Your task to perform on an android device: Open Youtube and go to the subscriptions tab Image 0: 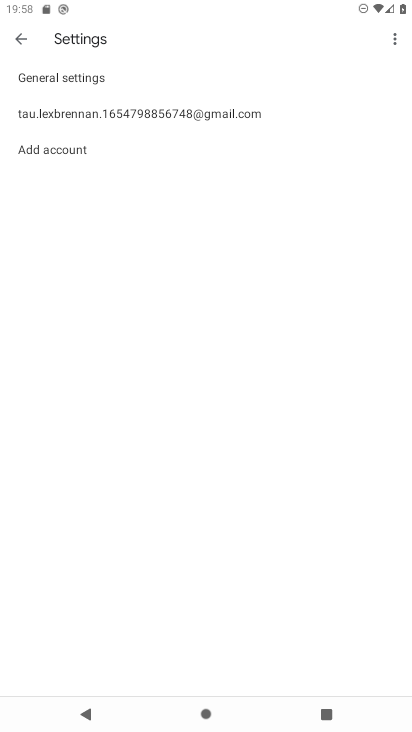
Step 0: press home button
Your task to perform on an android device: Open Youtube and go to the subscriptions tab Image 1: 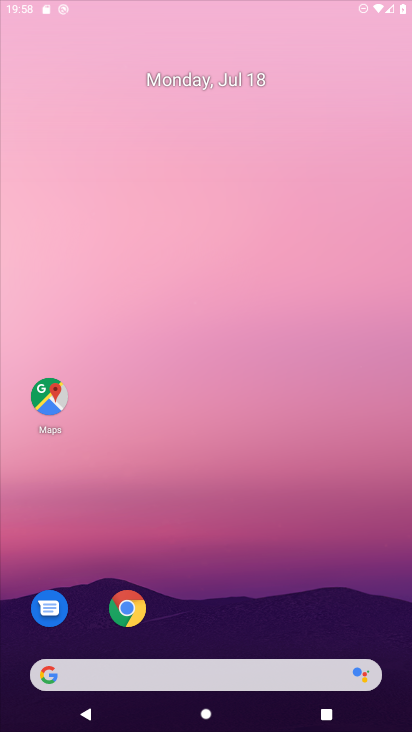
Step 1: drag from (249, 660) to (327, 110)
Your task to perform on an android device: Open Youtube and go to the subscriptions tab Image 2: 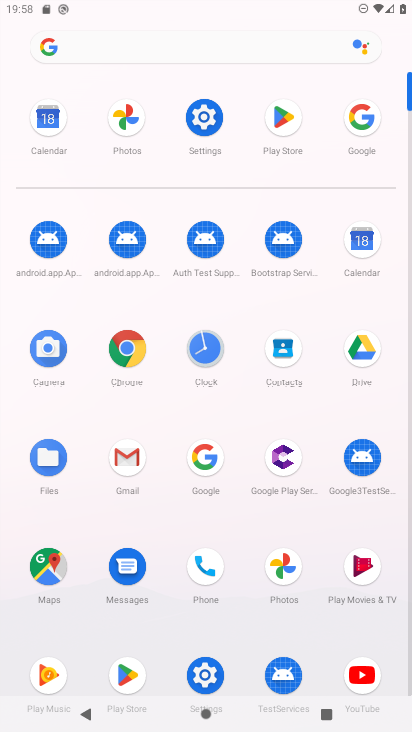
Step 2: click (359, 678)
Your task to perform on an android device: Open Youtube and go to the subscriptions tab Image 3: 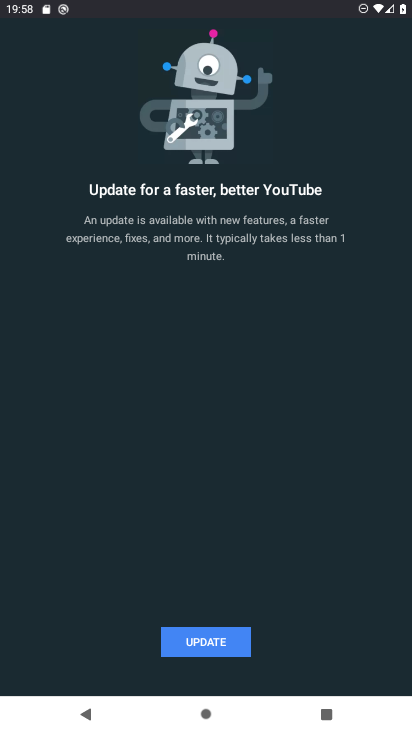
Step 3: click (208, 649)
Your task to perform on an android device: Open Youtube and go to the subscriptions tab Image 4: 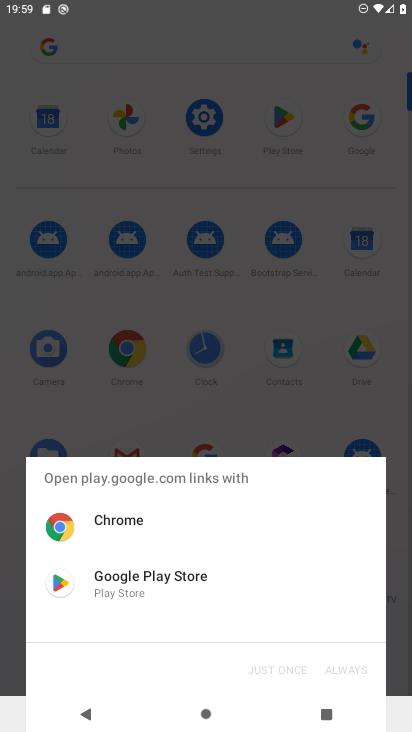
Step 4: click (121, 585)
Your task to perform on an android device: Open Youtube and go to the subscriptions tab Image 5: 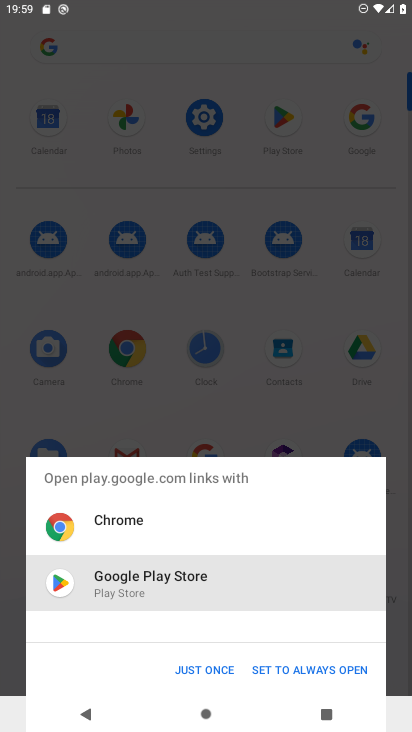
Step 5: click (207, 667)
Your task to perform on an android device: Open Youtube and go to the subscriptions tab Image 6: 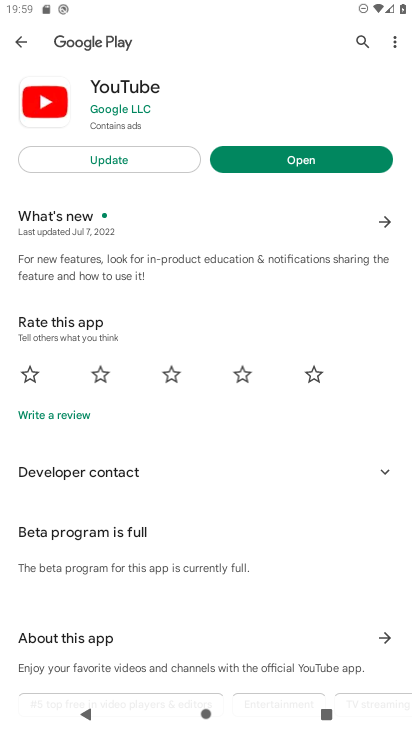
Step 6: click (287, 161)
Your task to perform on an android device: Open Youtube and go to the subscriptions tab Image 7: 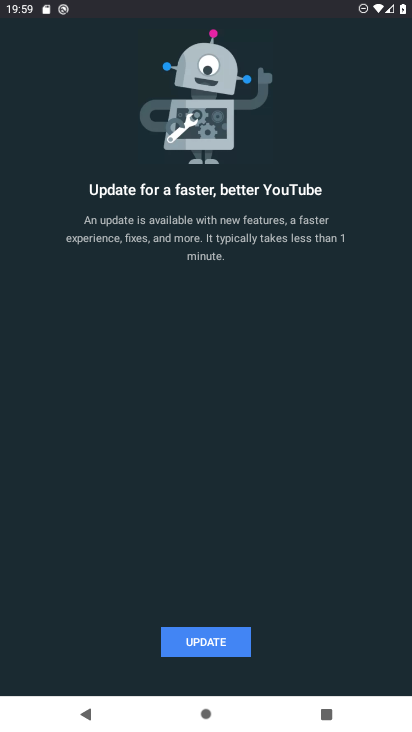
Step 7: click (201, 646)
Your task to perform on an android device: Open Youtube and go to the subscriptions tab Image 8: 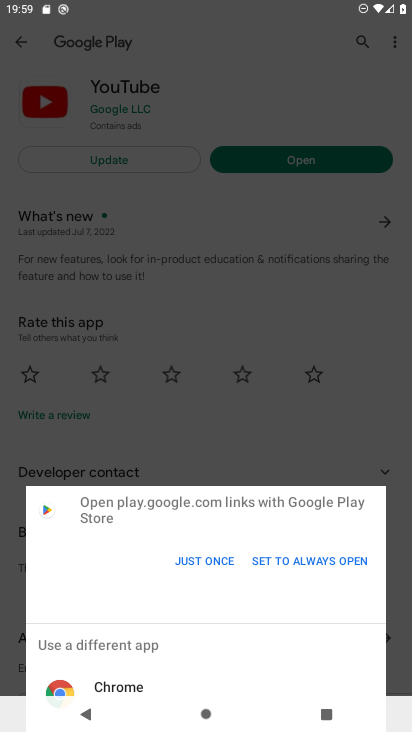
Step 8: click (198, 562)
Your task to perform on an android device: Open Youtube and go to the subscriptions tab Image 9: 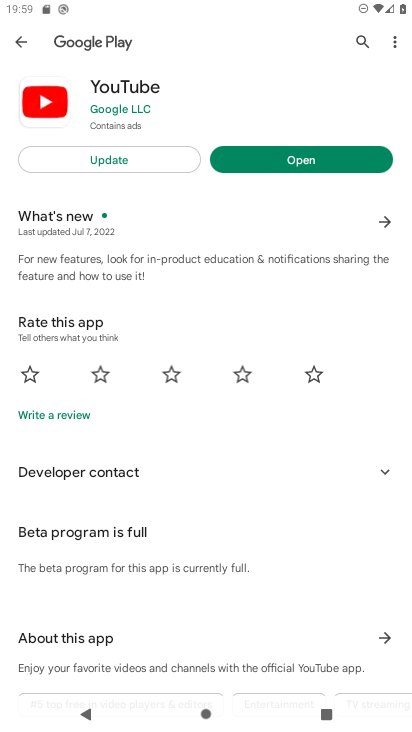
Step 9: click (103, 155)
Your task to perform on an android device: Open Youtube and go to the subscriptions tab Image 10: 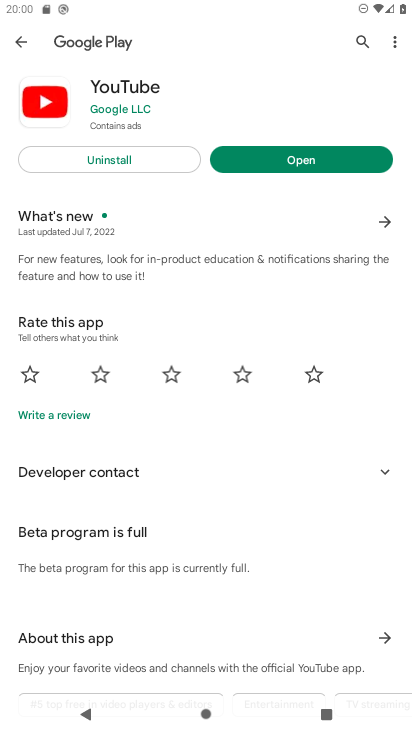
Step 10: click (292, 164)
Your task to perform on an android device: Open Youtube and go to the subscriptions tab Image 11: 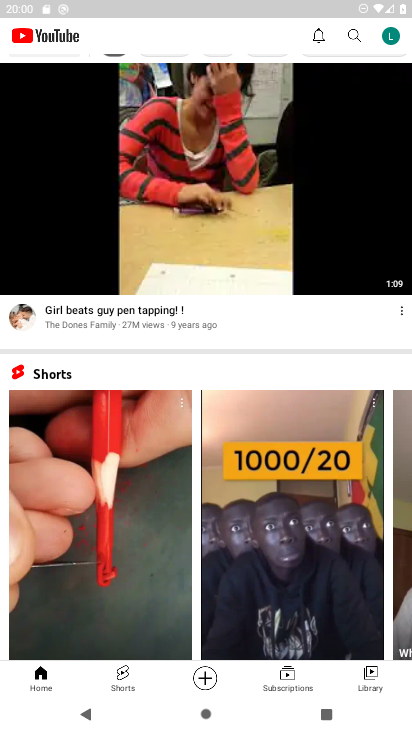
Step 11: click (287, 674)
Your task to perform on an android device: Open Youtube and go to the subscriptions tab Image 12: 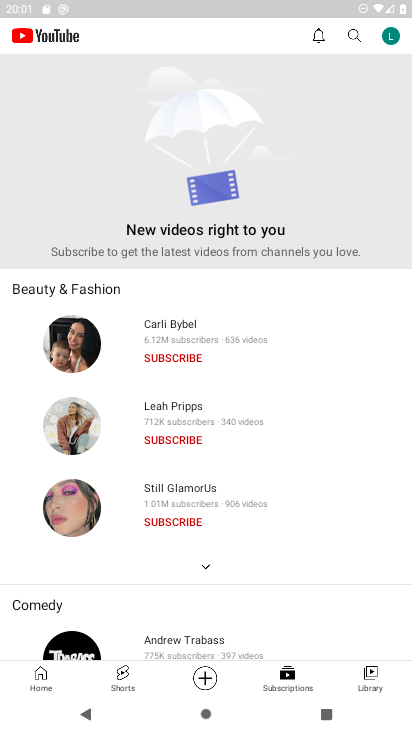
Step 12: task complete